Your task to perform on an android device: turn off wifi Image 0: 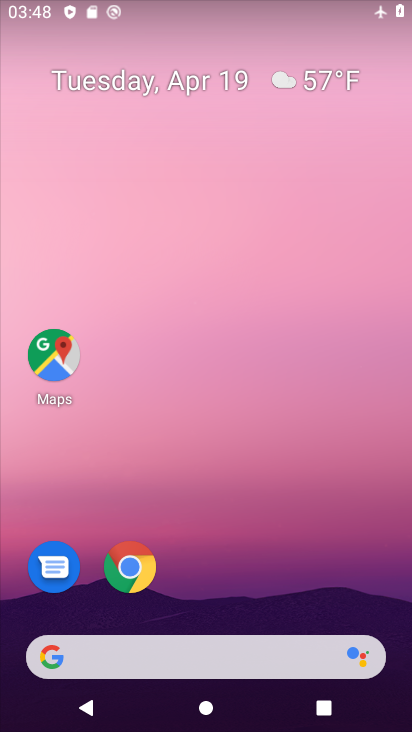
Step 0: drag from (329, 565) to (338, 113)
Your task to perform on an android device: turn off wifi Image 1: 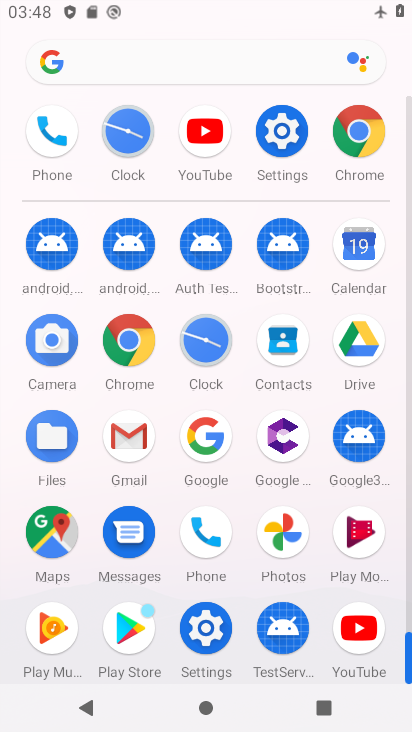
Step 1: click (275, 130)
Your task to perform on an android device: turn off wifi Image 2: 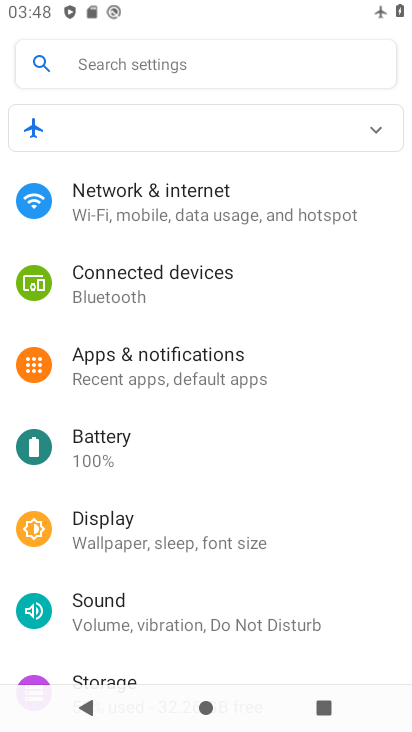
Step 2: drag from (360, 502) to (360, 263)
Your task to perform on an android device: turn off wifi Image 3: 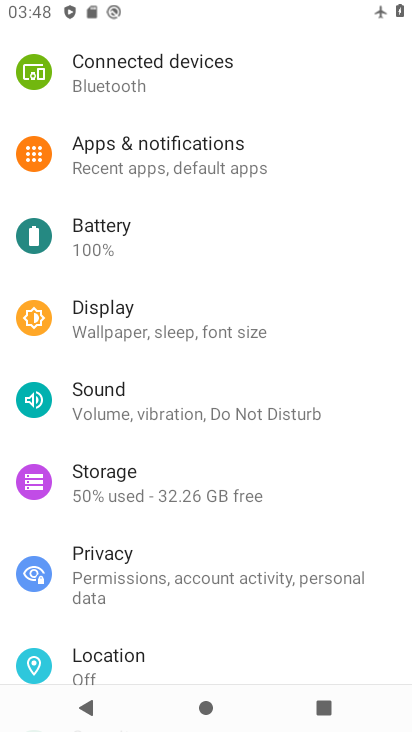
Step 3: drag from (360, 629) to (362, 366)
Your task to perform on an android device: turn off wifi Image 4: 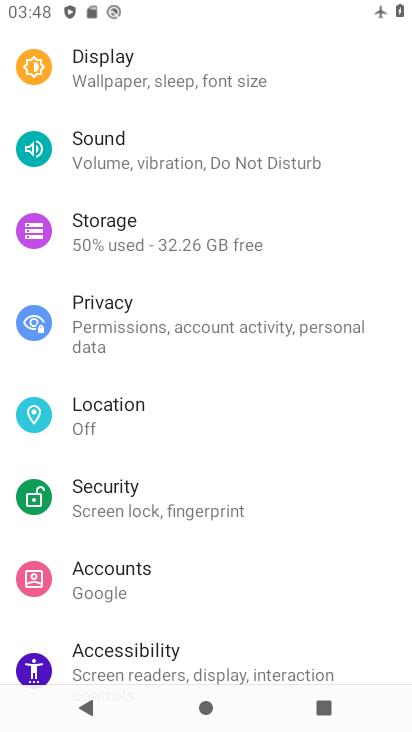
Step 4: drag from (365, 579) to (361, 249)
Your task to perform on an android device: turn off wifi Image 5: 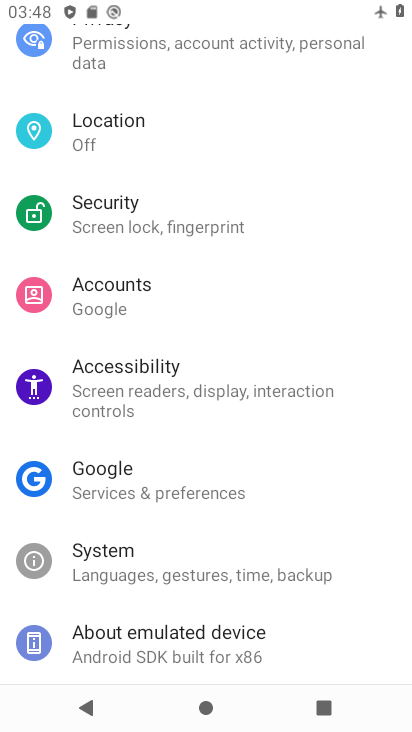
Step 5: drag from (354, 603) to (357, 405)
Your task to perform on an android device: turn off wifi Image 6: 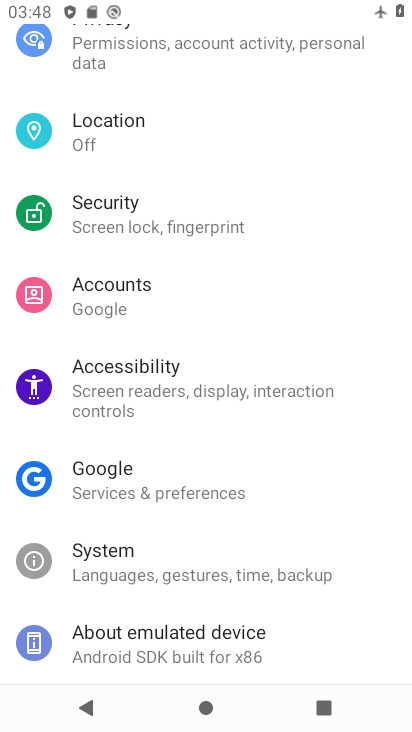
Step 6: drag from (367, 230) to (372, 447)
Your task to perform on an android device: turn off wifi Image 7: 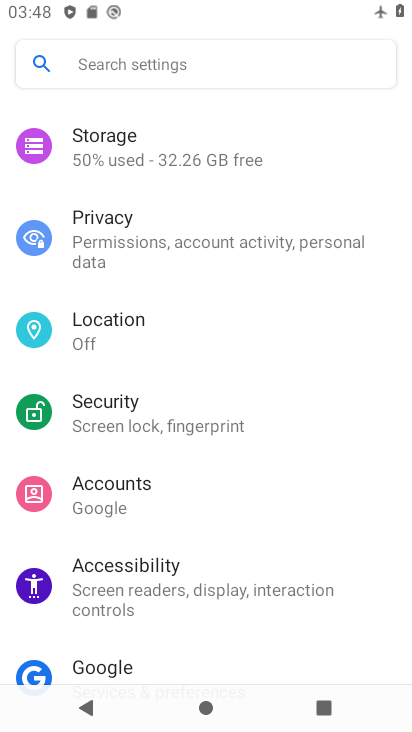
Step 7: drag from (354, 312) to (349, 456)
Your task to perform on an android device: turn off wifi Image 8: 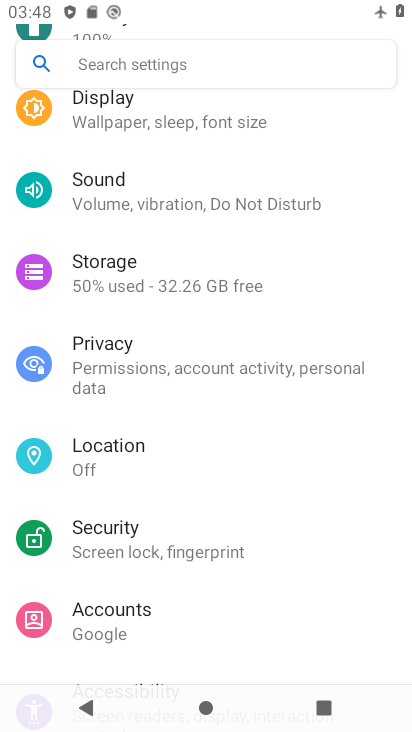
Step 8: drag from (364, 216) to (382, 455)
Your task to perform on an android device: turn off wifi Image 9: 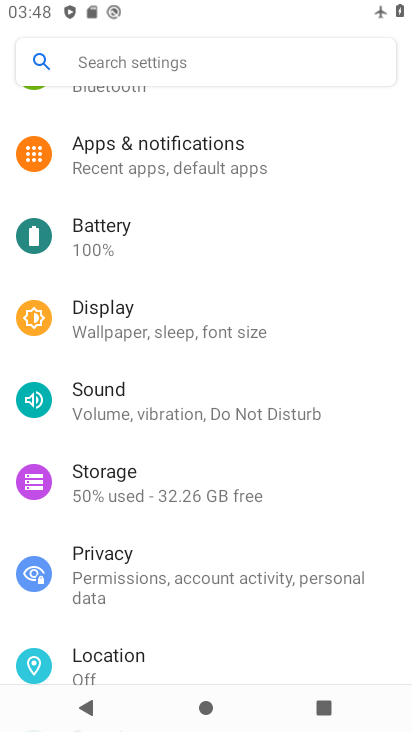
Step 9: drag from (373, 269) to (351, 458)
Your task to perform on an android device: turn off wifi Image 10: 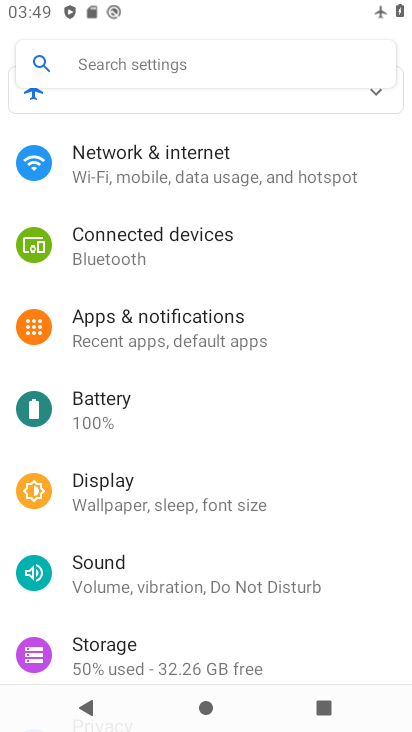
Step 10: drag from (344, 243) to (338, 419)
Your task to perform on an android device: turn off wifi Image 11: 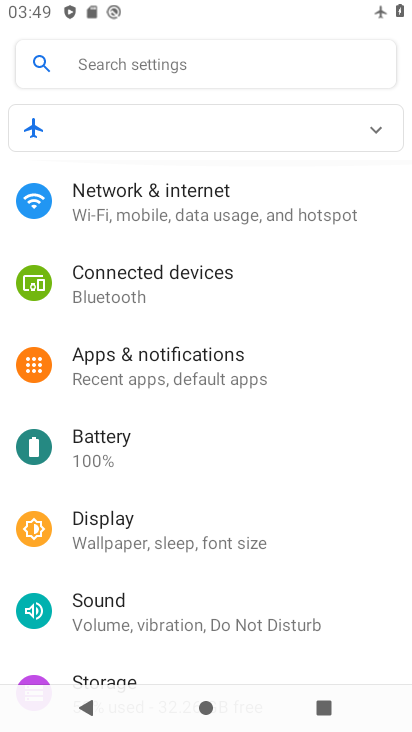
Step 11: click (217, 197)
Your task to perform on an android device: turn off wifi Image 12: 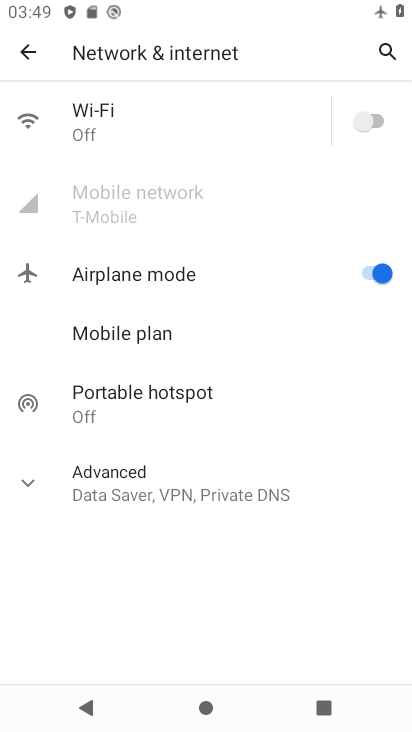
Step 12: task complete